Your task to perform on an android device: open wifi settings Image 0: 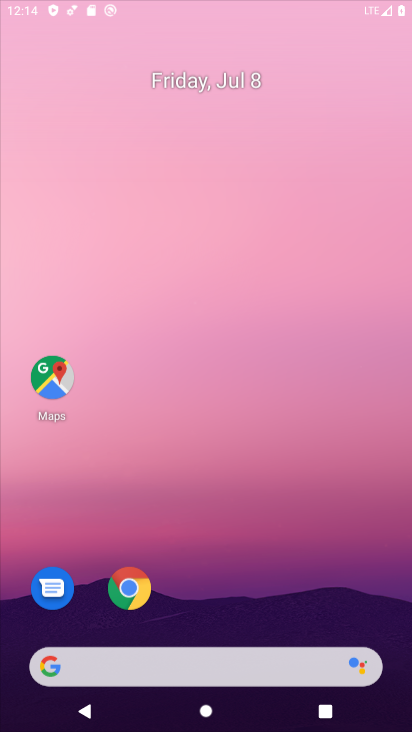
Step 0: press home button
Your task to perform on an android device: open wifi settings Image 1: 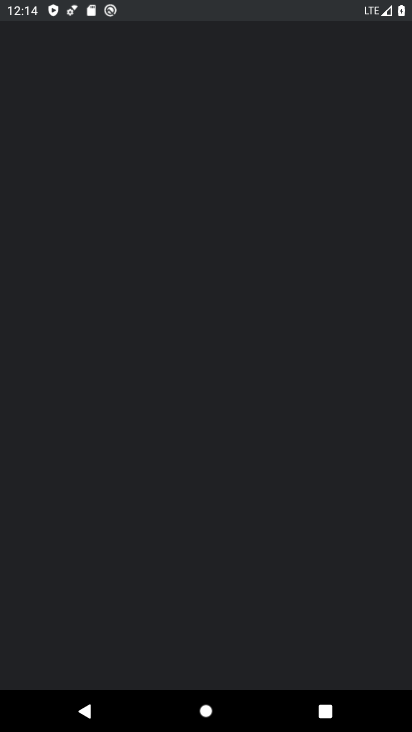
Step 1: drag from (213, 629) to (278, 211)
Your task to perform on an android device: open wifi settings Image 2: 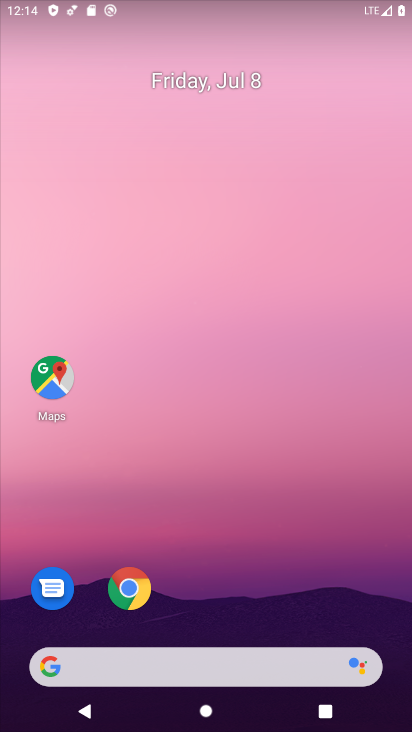
Step 2: drag from (225, 621) to (259, 98)
Your task to perform on an android device: open wifi settings Image 3: 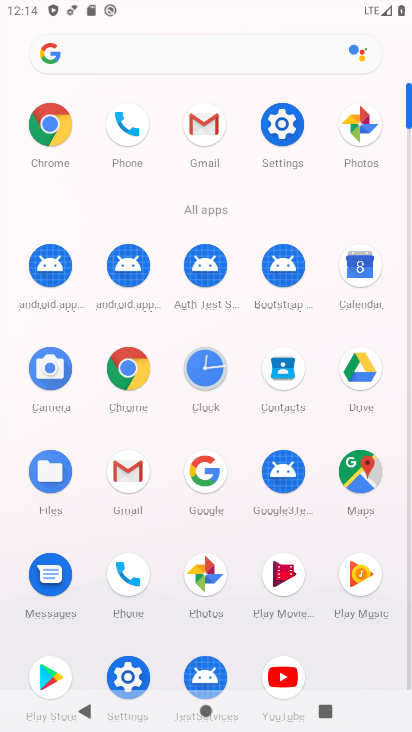
Step 3: click (278, 118)
Your task to perform on an android device: open wifi settings Image 4: 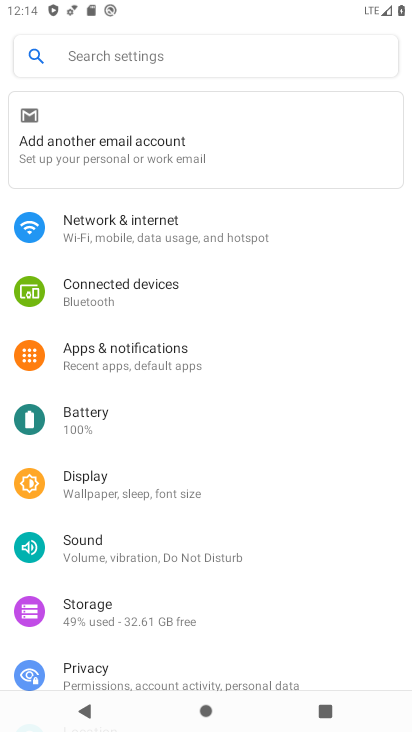
Step 4: click (198, 218)
Your task to perform on an android device: open wifi settings Image 5: 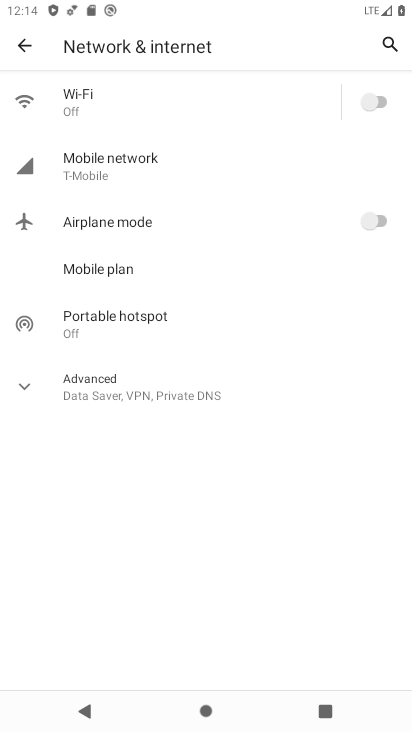
Step 5: click (213, 95)
Your task to perform on an android device: open wifi settings Image 6: 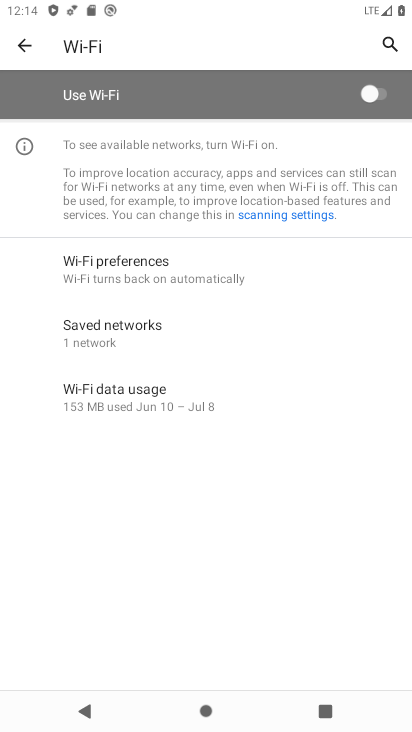
Step 6: click (383, 97)
Your task to perform on an android device: open wifi settings Image 7: 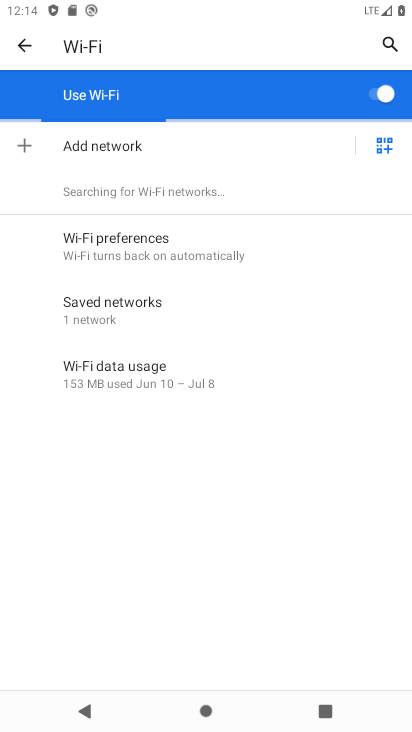
Step 7: task complete